Your task to perform on an android device: Check the news Image 0: 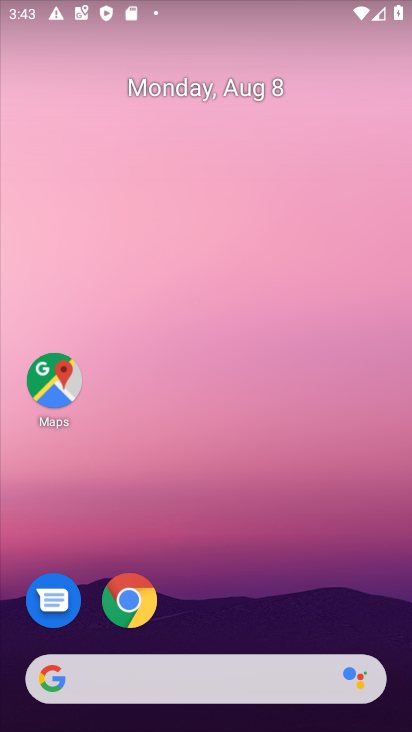
Step 0: drag from (2, 252) to (410, 212)
Your task to perform on an android device: Check the news Image 1: 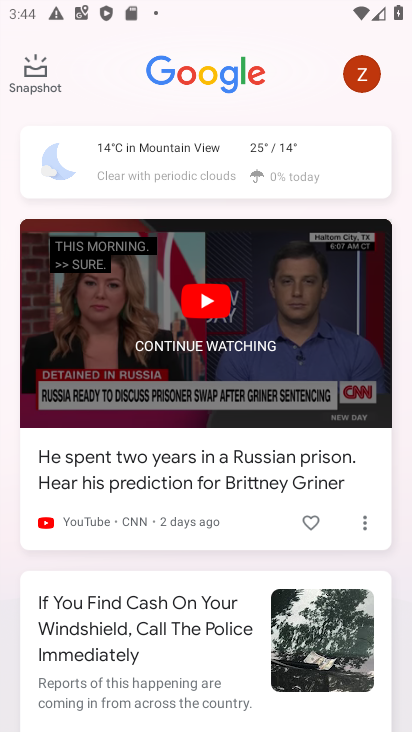
Step 1: drag from (197, 508) to (240, 324)
Your task to perform on an android device: Check the news Image 2: 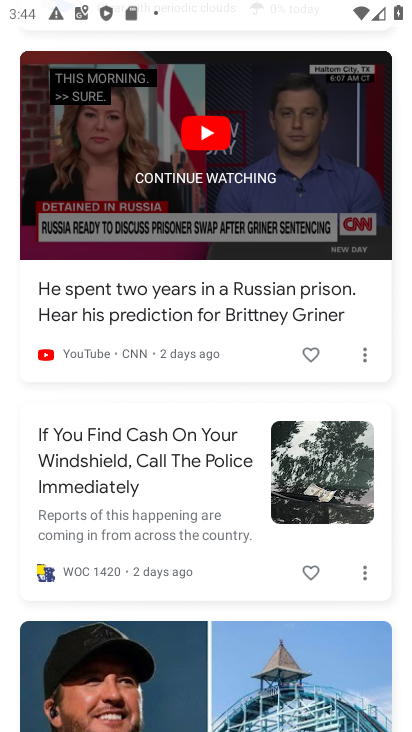
Step 2: drag from (221, 662) to (295, 339)
Your task to perform on an android device: Check the news Image 3: 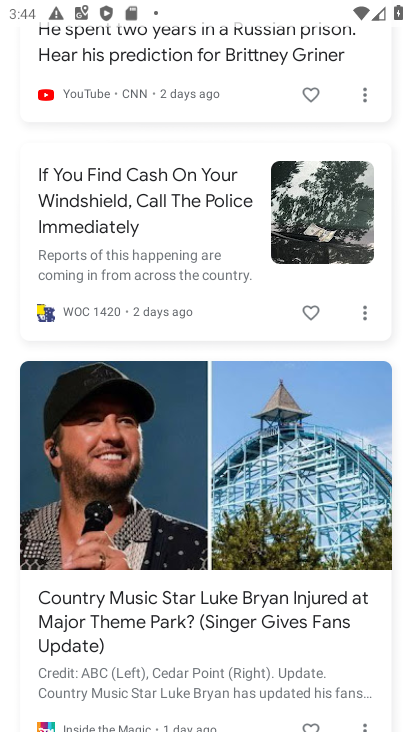
Step 3: drag from (266, 585) to (259, 227)
Your task to perform on an android device: Check the news Image 4: 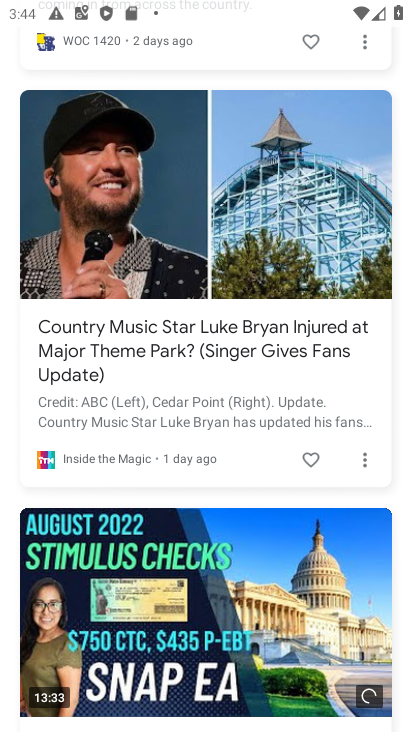
Step 4: click (237, 355)
Your task to perform on an android device: Check the news Image 5: 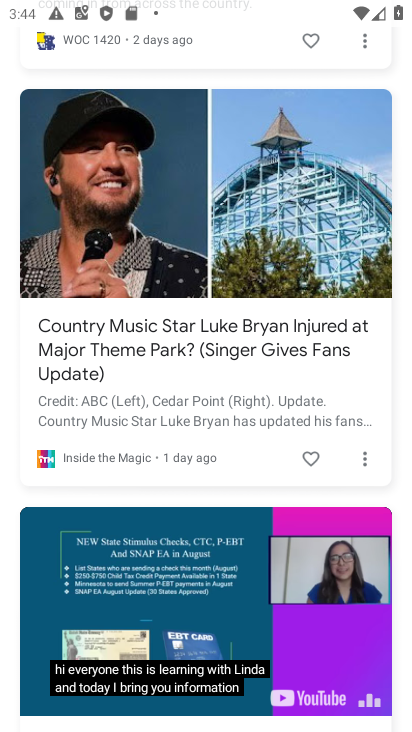
Step 5: task complete